Your task to perform on an android device: Search for razer deathadder on ebay, select the first entry, add it to the cart, then select checkout. Image 0: 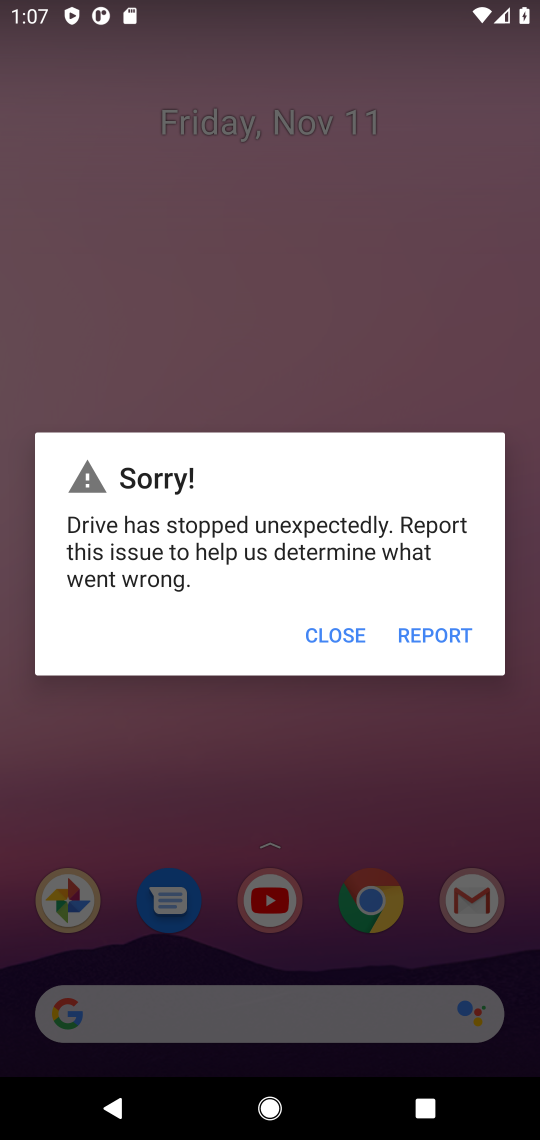
Step 0: press home button
Your task to perform on an android device: Search for razer deathadder on ebay, select the first entry, add it to the cart, then select checkout. Image 1: 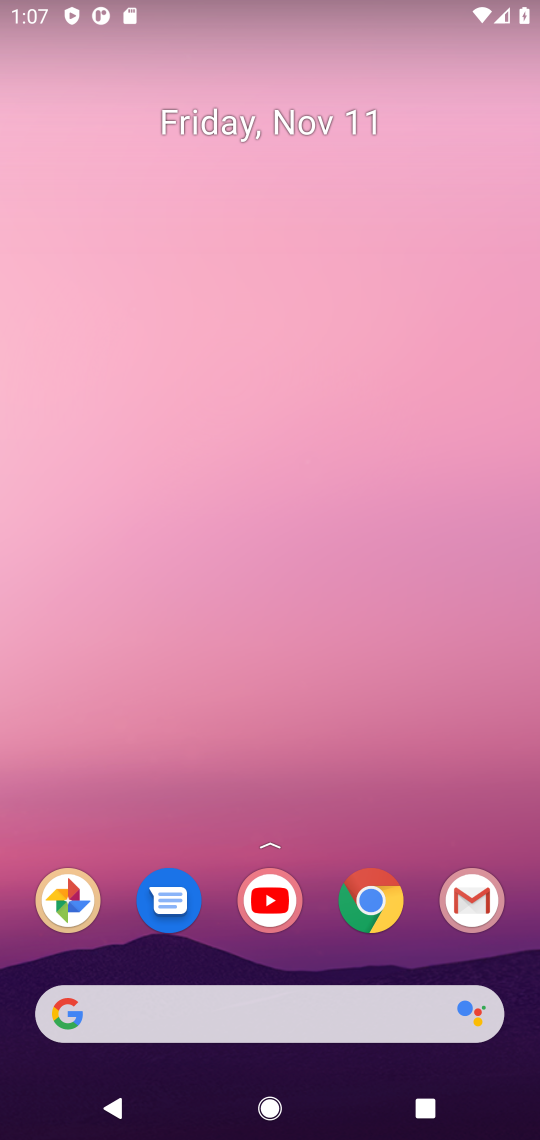
Step 1: click (369, 905)
Your task to perform on an android device: Search for razer deathadder on ebay, select the first entry, add it to the cart, then select checkout. Image 2: 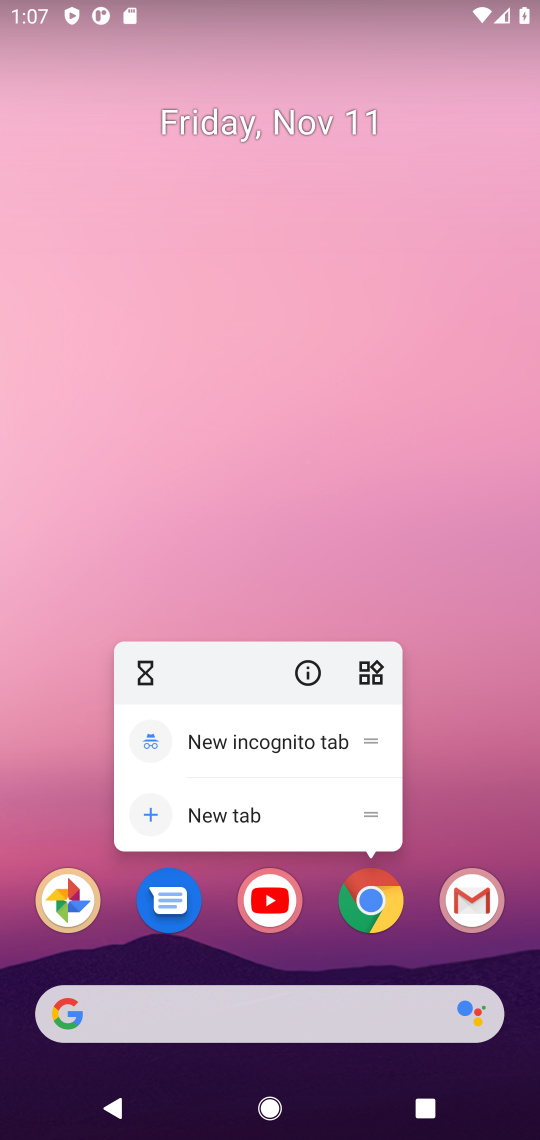
Step 2: click (369, 906)
Your task to perform on an android device: Search for razer deathadder on ebay, select the first entry, add it to the cart, then select checkout. Image 3: 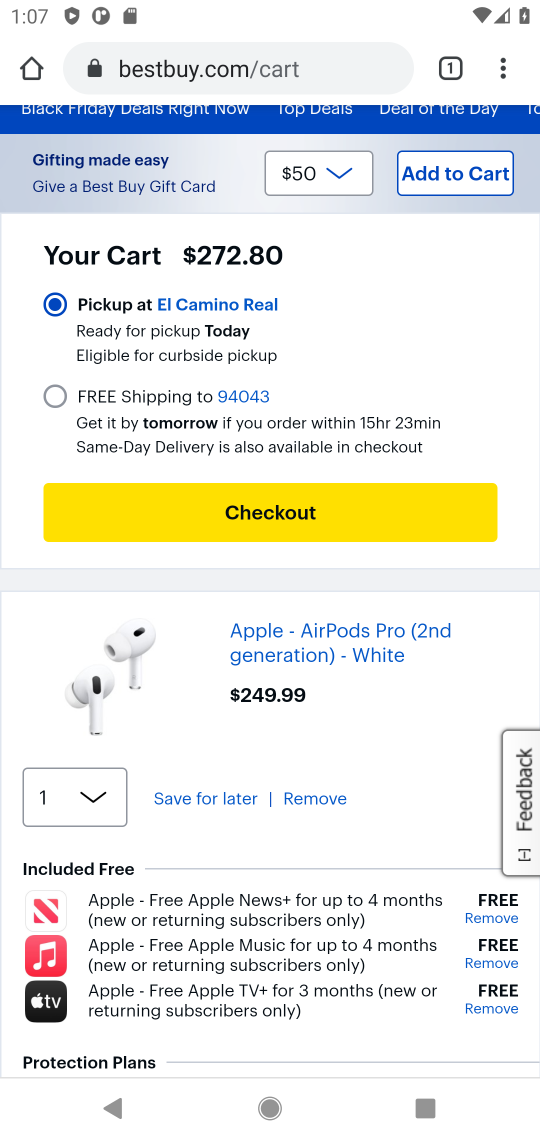
Step 3: click (244, 62)
Your task to perform on an android device: Search for razer deathadder on ebay, select the first entry, add it to the cart, then select checkout. Image 4: 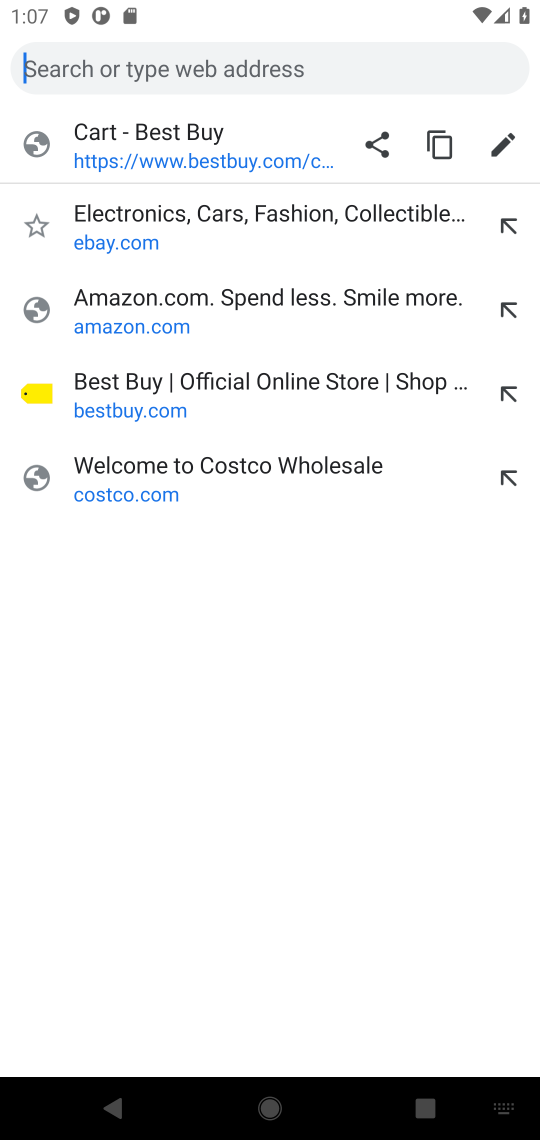
Step 4: click (109, 240)
Your task to perform on an android device: Search for razer deathadder on ebay, select the first entry, add it to the cart, then select checkout. Image 5: 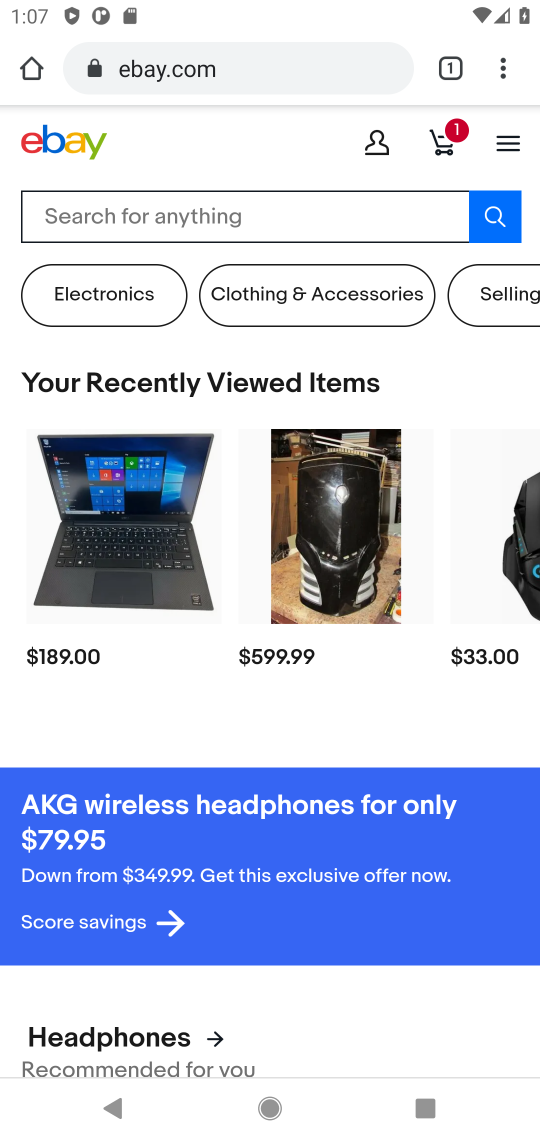
Step 5: click (187, 216)
Your task to perform on an android device: Search for razer deathadder on ebay, select the first entry, add it to the cart, then select checkout. Image 6: 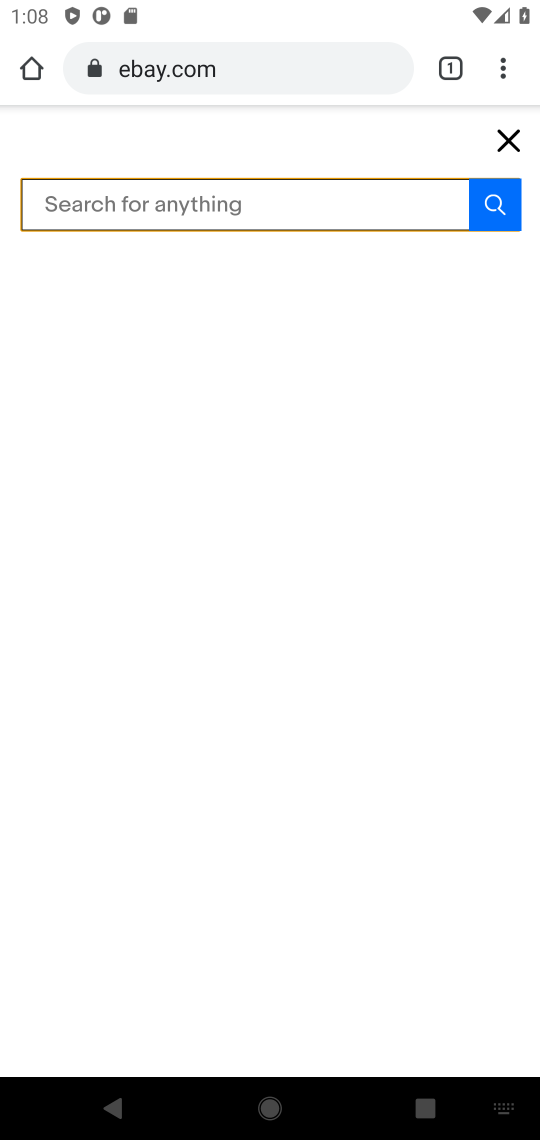
Step 6: type "razer deathadder"
Your task to perform on an android device: Search for razer deathadder on ebay, select the first entry, add it to the cart, then select checkout. Image 7: 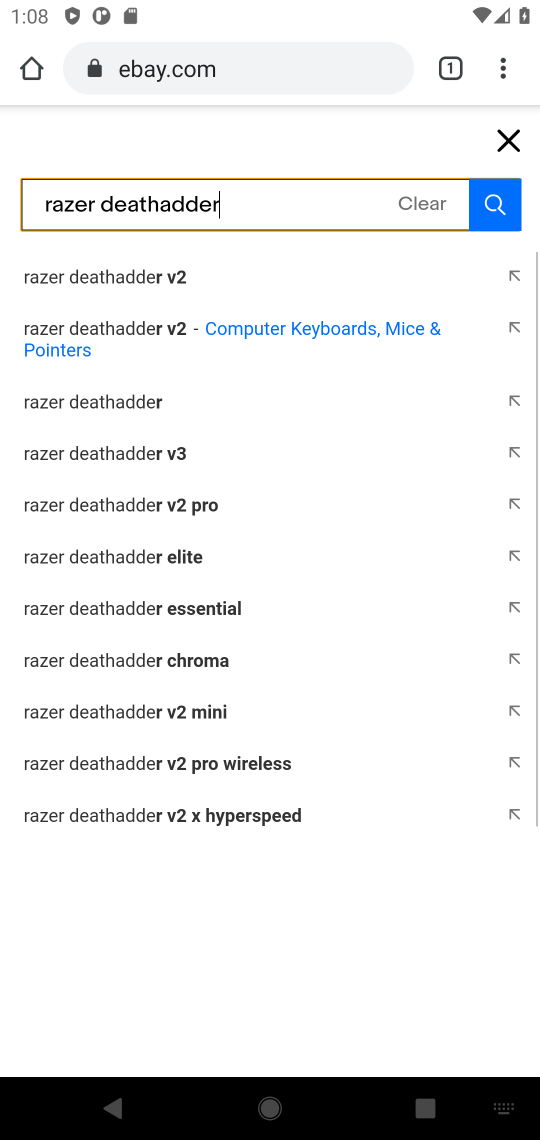
Step 7: press enter
Your task to perform on an android device: Search for razer deathadder on ebay, select the first entry, add it to the cart, then select checkout. Image 8: 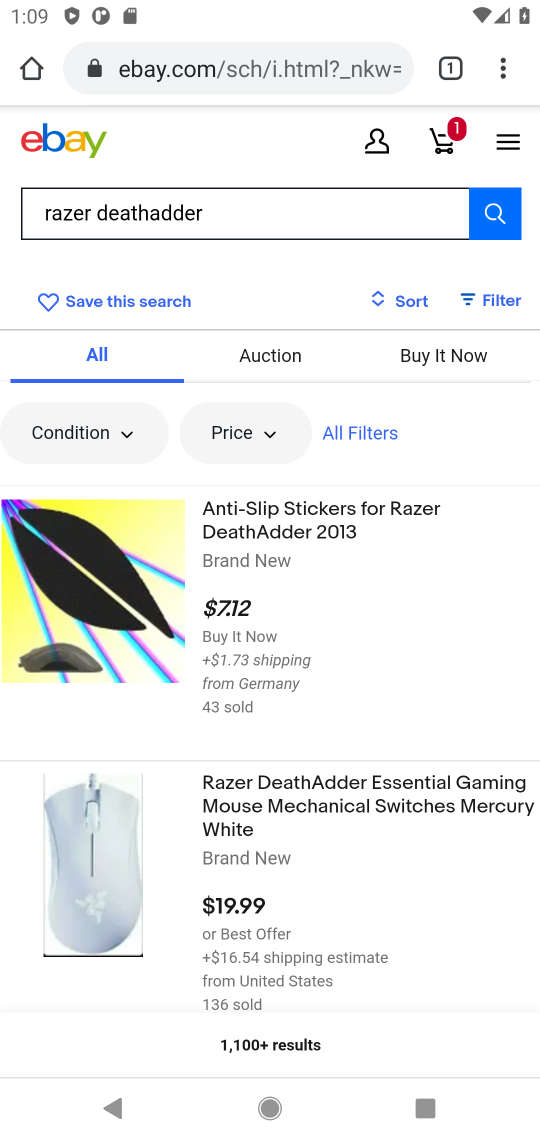
Step 8: task complete